Your task to perform on an android device: Search for the best rated circular saw on Lowes.com Image 0: 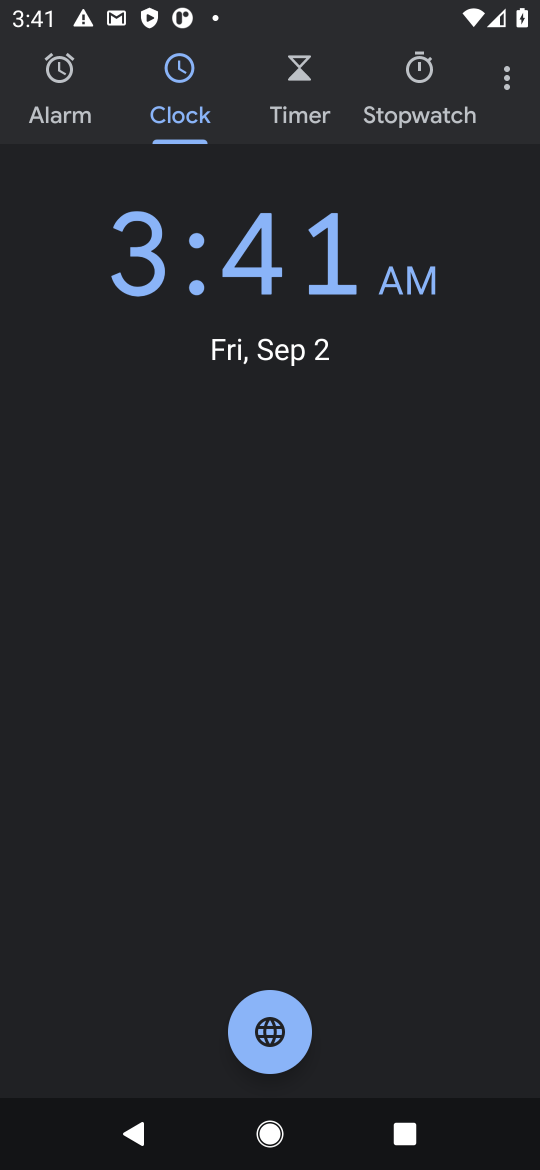
Step 0: press home button
Your task to perform on an android device: Search for the best rated circular saw on Lowes.com Image 1: 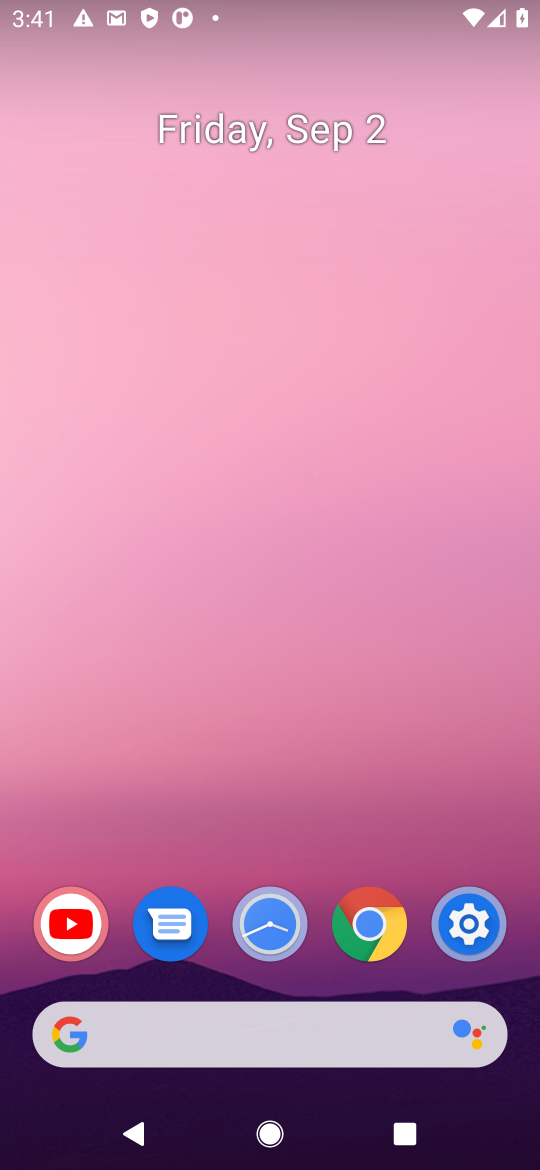
Step 1: click (410, 1028)
Your task to perform on an android device: Search for the best rated circular saw on Lowes.com Image 2: 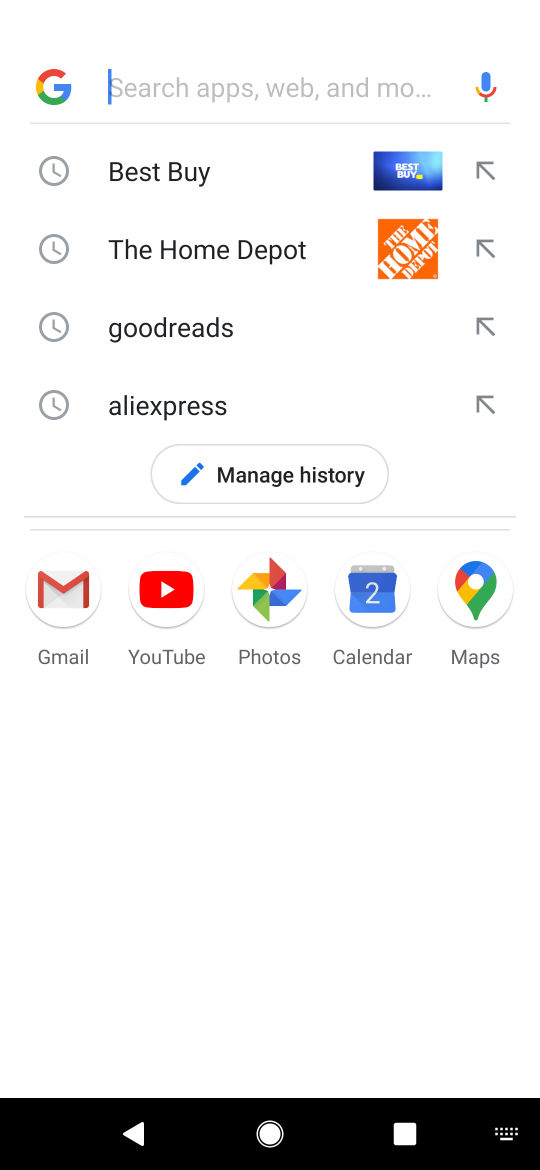
Step 2: press enter
Your task to perform on an android device: Search for the best rated circular saw on Lowes.com Image 3: 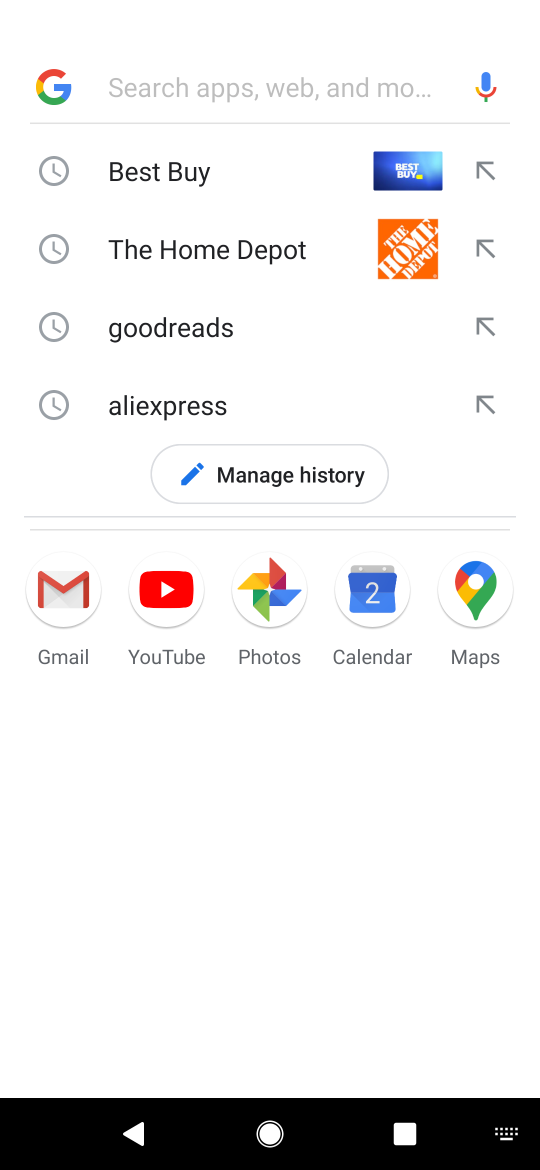
Step 3: type "lowes.com"
Your task to perform on an android device: Search for the best rated circular saw on Lowes.com Image 4: 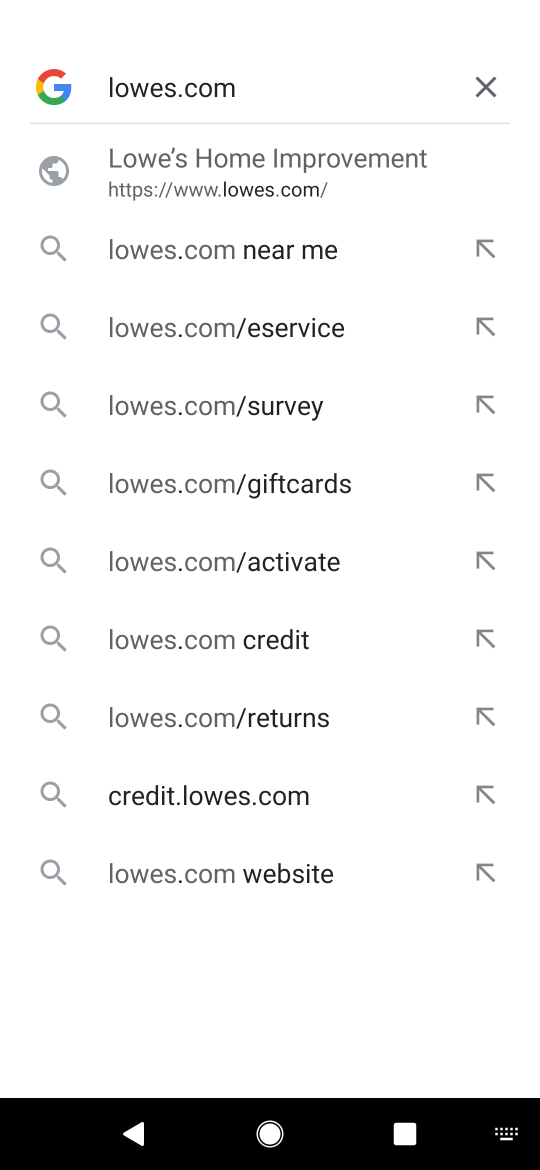
Step 4: click (278, 175)
Your task to perform on an android device: Search for the best rated circular saw on Lowes.com Image 5: 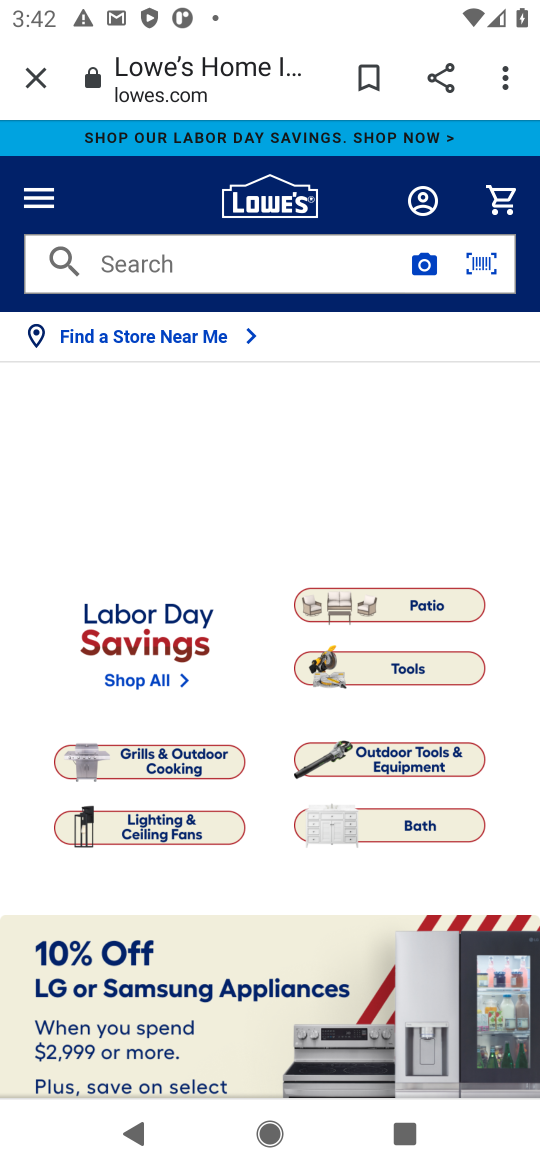
Step 5: click (272, 267)
Your task to perform on an android device: Search for the best rated circular saw on Lowes.com Image 6: 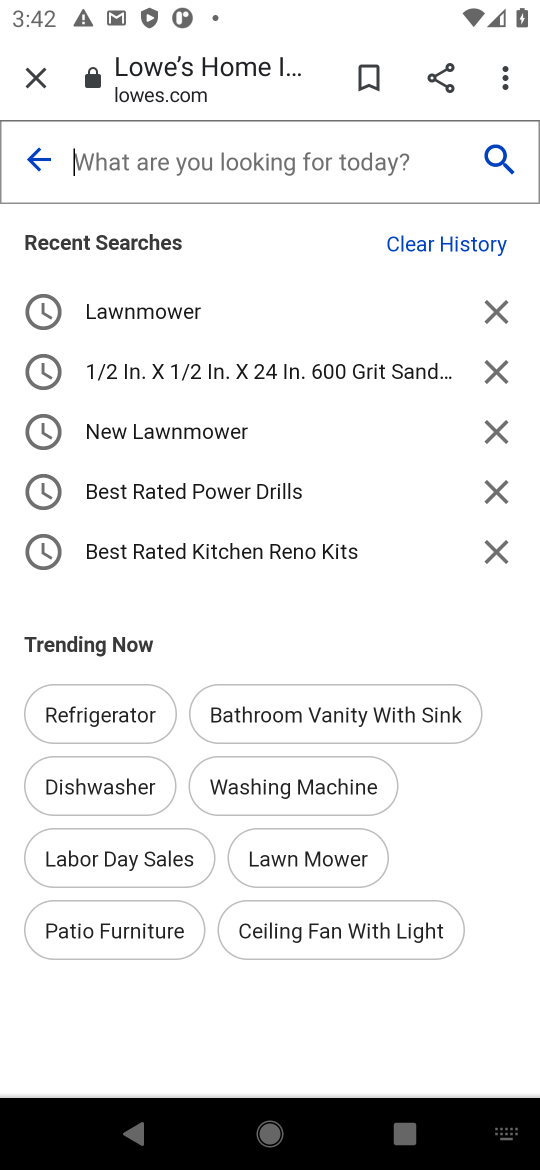
Step 6: type "best rated saw "
Your task to perform on an android device: Search for the best rated circular saw on Lowes.com Image 7: 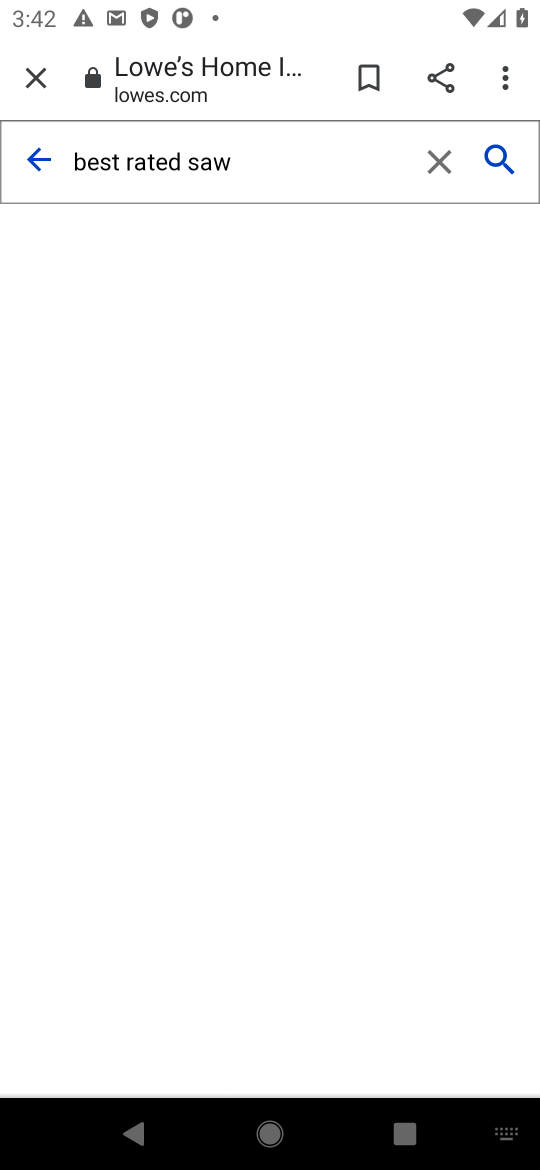
Step 7: click (494, 154)
Your task to perform on an android device: Search for the best rated circular saw on Lowes.com Image 8: 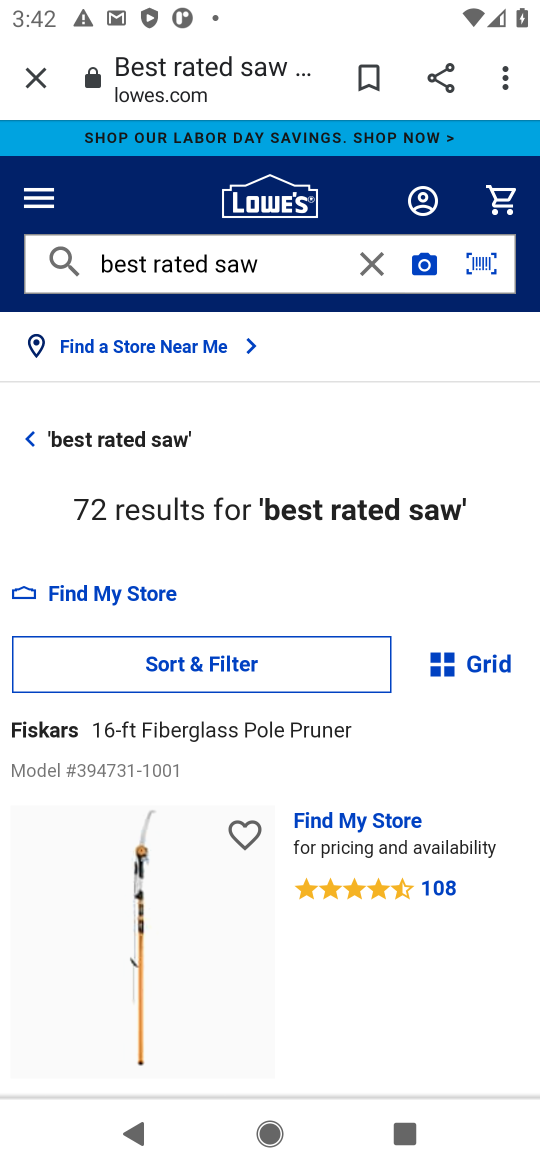
Step 8: task complete